Your task to perform on an android device: star an email in the gmail app Image 0: 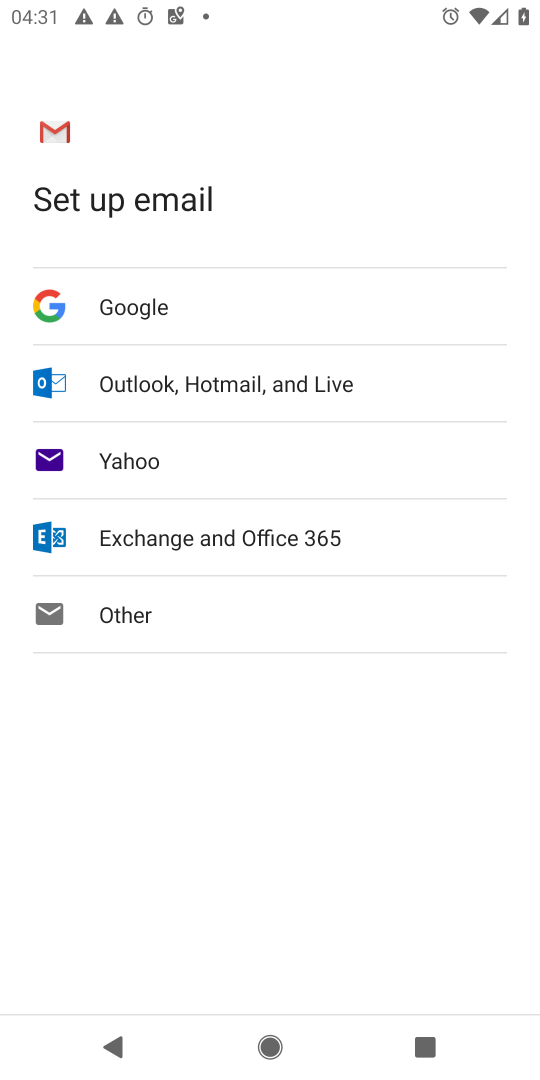
Step 0: press home button
Your task to perform on an android device: star an email in the gmail app Image 1: 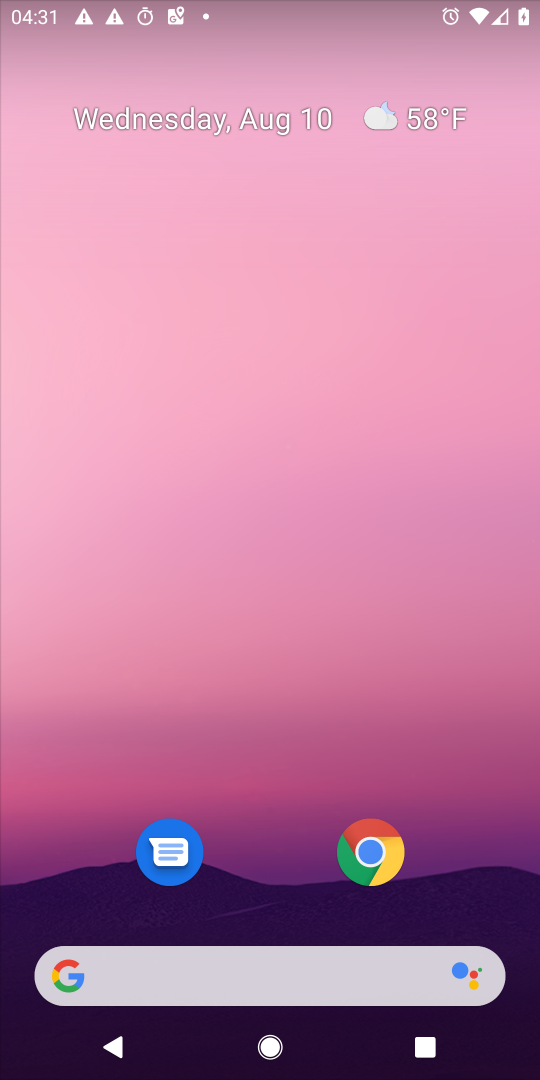
Step 1: drag from (259, 896) to (152, 151)
Your task to perform on an android device: star an email in the gmail app Image 2: 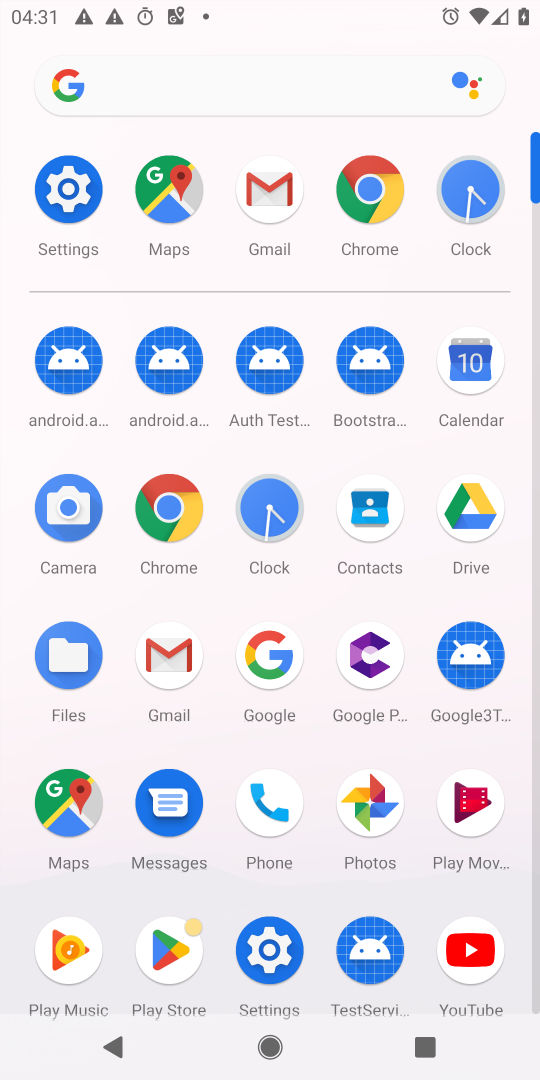
Step 2: click (255, 198)
Your task to perform on an android device: star an email in the gmail app Image 3: 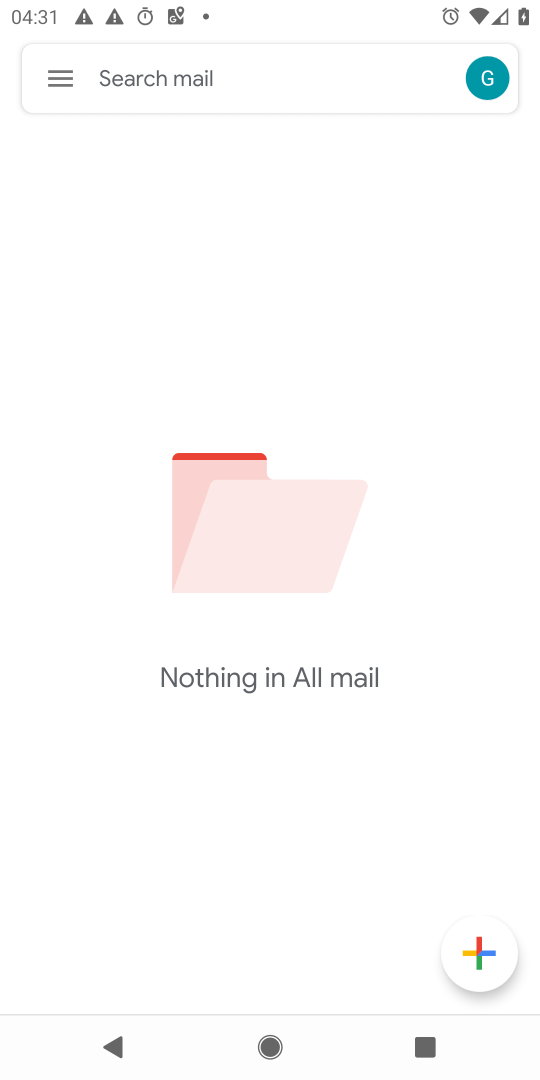
Step 3: click (58, 65)
Your task to perform on an android device: star an email in the gmail app Image 4: 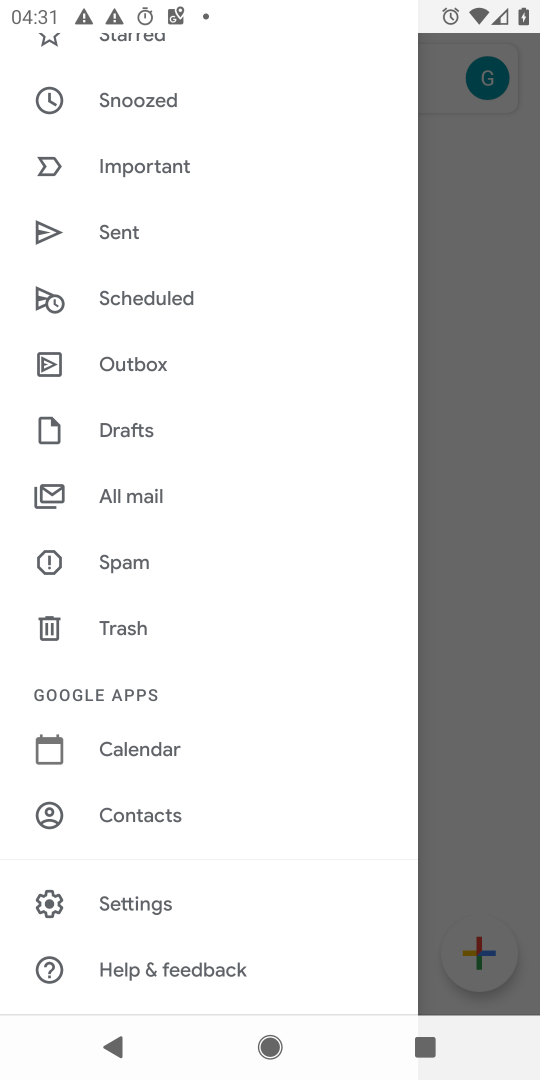
Step 4: drag from (126, 215) to (209, 826)
Your task to perform on an android device: star an email in the gmail app Image 5: 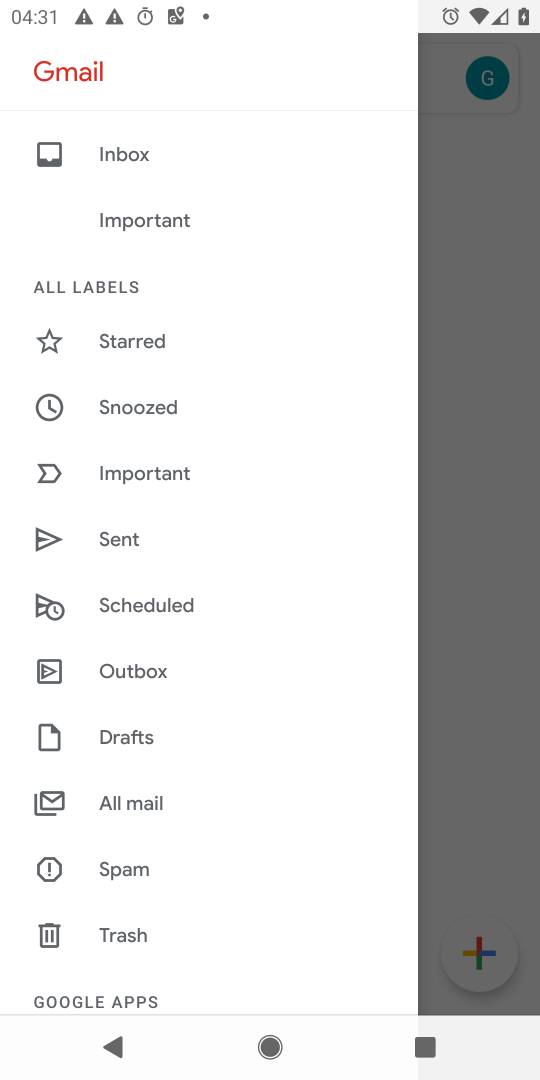
Step 5: click (100, 807)
Your task to perform on an android device: star an email in the gmail app Image 6: 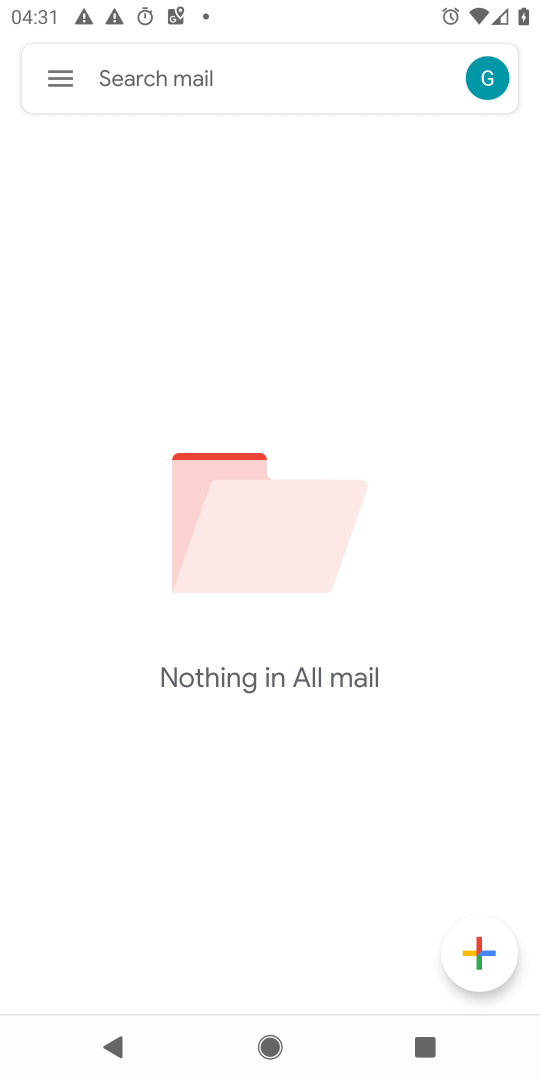
Step 6: task complete